Your task to perform on an android device: allow cookies in the chrome app Image 0: 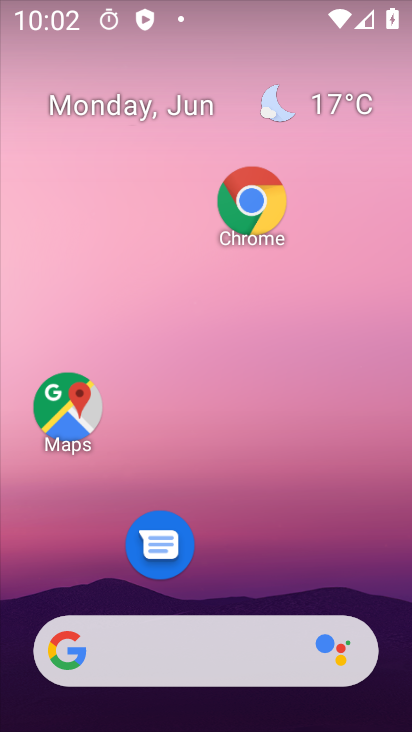
Step 0: click (266, 206)
Your task to perform on an android device: allow cookies in the chrome app Image 1: 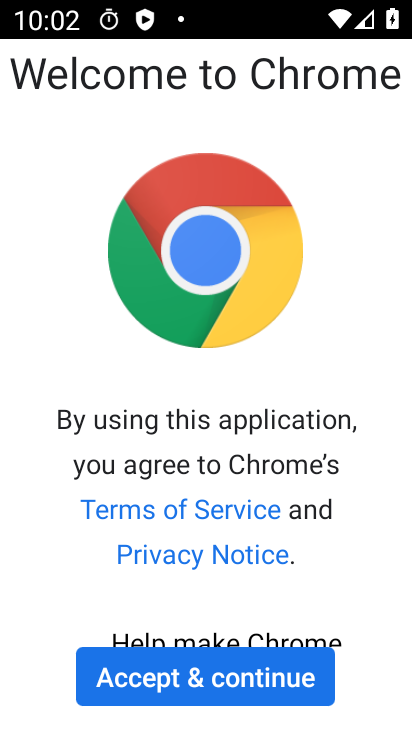
Step 1: click (258, 690)
Your task to perform on an android device: allow cookies in the chrome app Image 2: 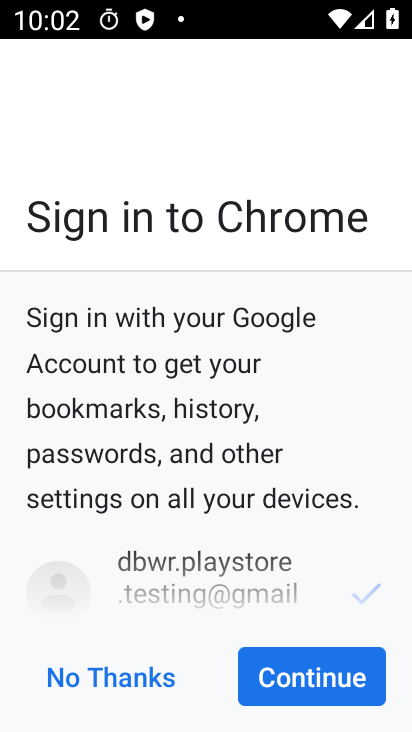
Step 2: click (288, 677)
Your task to perform on an android device: allow cookies in the chrome app Image 3: 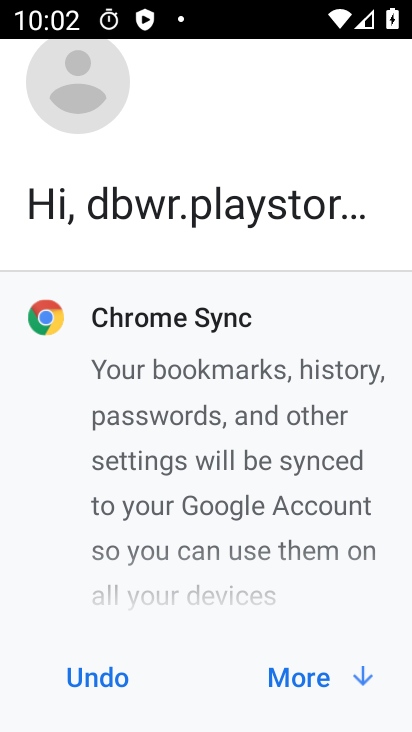
Step 3: click (288, 677)
Your task to perform on an android device: allow cookies in the chrome app Image 4: 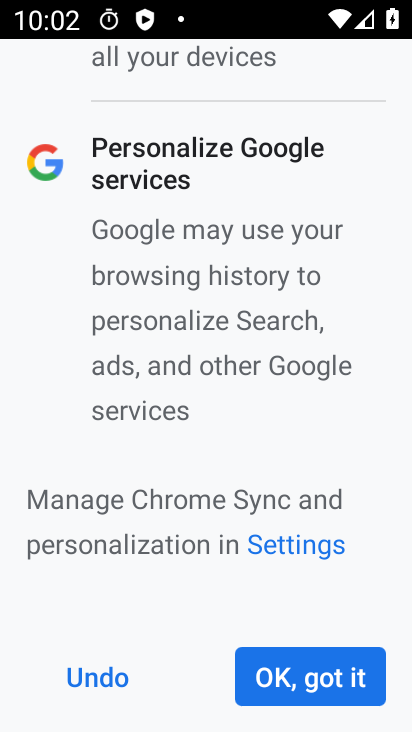
Step 4: click (288, 677)
Your task to perform on an android device: allow cookies in the chrome app Image 5: 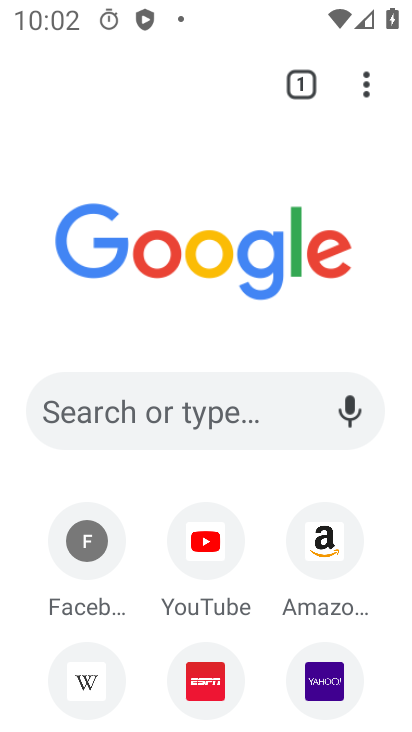
Step 5: click (366, 72)
Your task to perform on an android device: allow cookies in the chrome app Image 6: 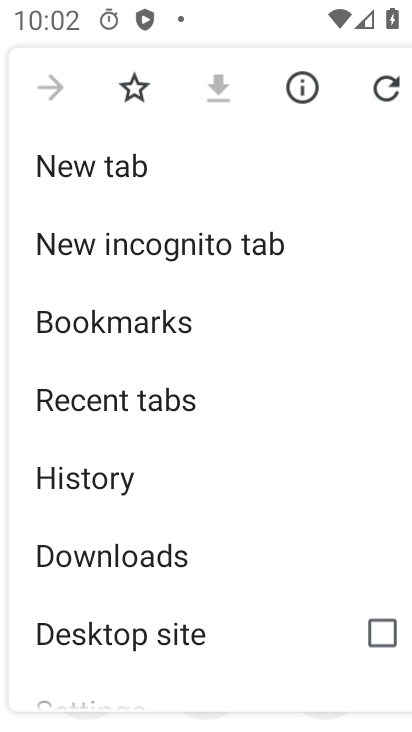
Step 6: click (99, 702)
Your task to perform on an android device: allow cookies in the chrome app Image 7: 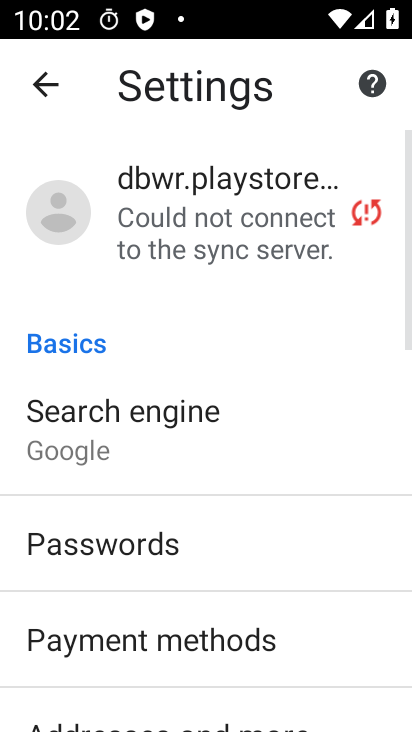
Step 7: drag from (99, 702) to (125, 189)
Your task to perform on an android device: allow cookies in the chrome app Image 8: 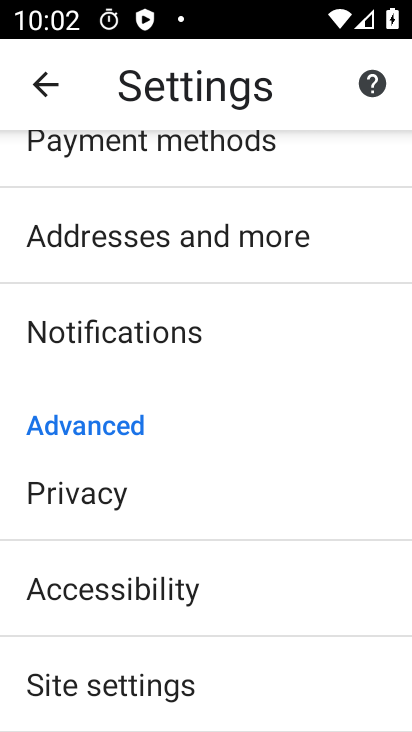
Step 8: click (73, 642)
Your task to perform on an android device: allow cookies in the chrome app Image 9: 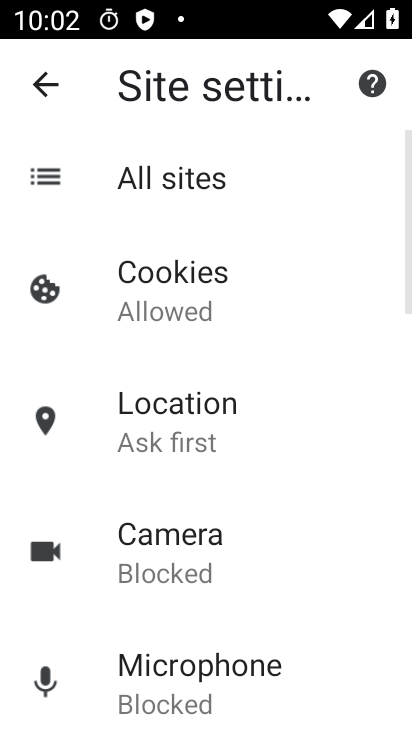
Step 9: click (140, 328)
Your task to perform on an android device: allow cookies in the chrome app Image 10: 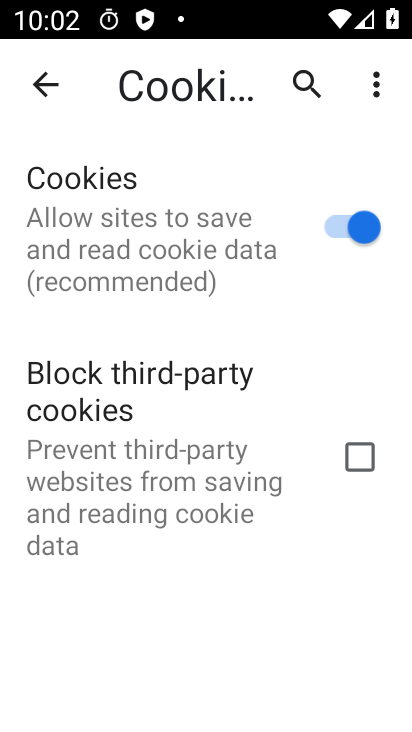
Step 10: task complete